Your task to perform on an android device: Open ESPN.com Image 0: 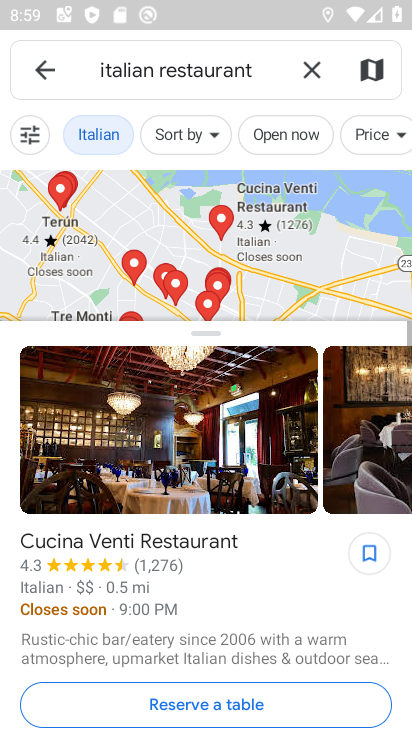
Step 0: press home button
Your task to perform on an android device: Open ESPN.com Image 1: 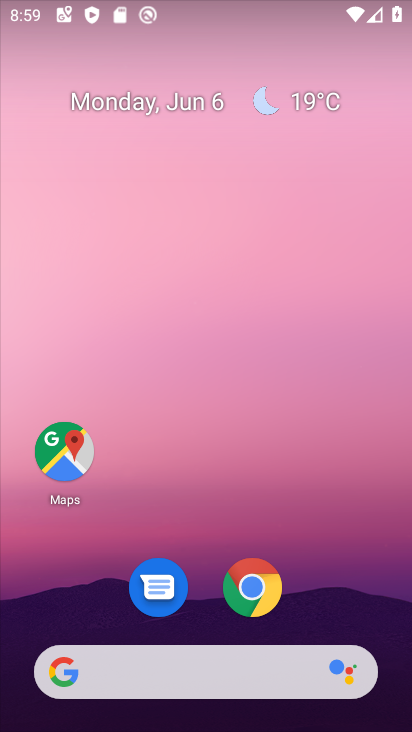
Step 1: click (277, 596)
Your task to perform on an android device: Open ESPN.com Image 2: 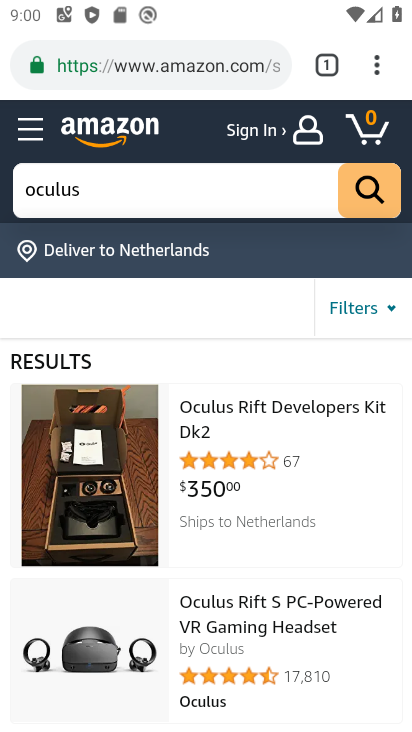
Step 2: click (181, 67)
Your task to perform on an android device: Open ESPN.com Image 3: 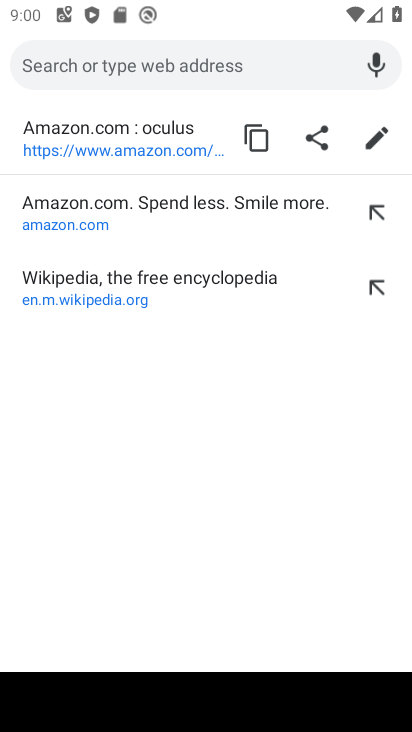
Step 3: type "espn.com"
Your task to perform on an android device: Open ESPN.com Image 4: 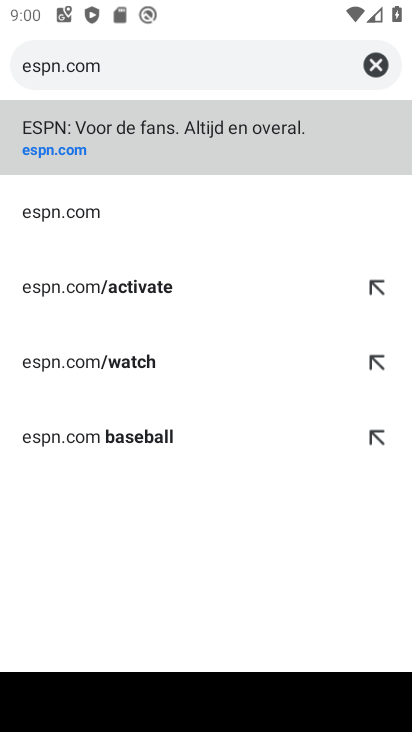
Step 4: click (78, 127)
Your task to perform on an android device: Open ESPN.com Image 5: 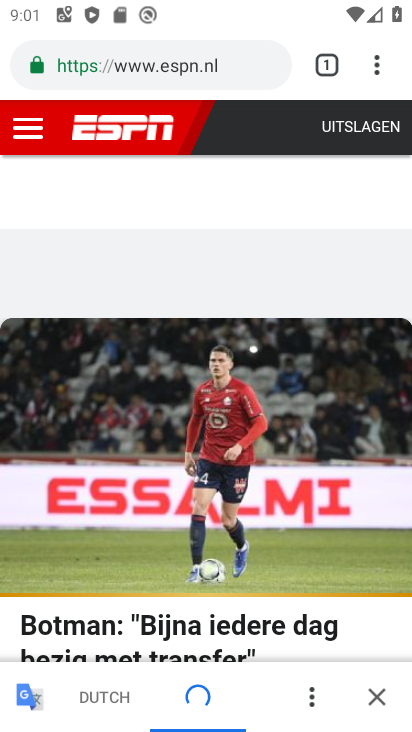
Step 5: task complete